Your task to perform on an android device: star an email in the gmail app Image 0: 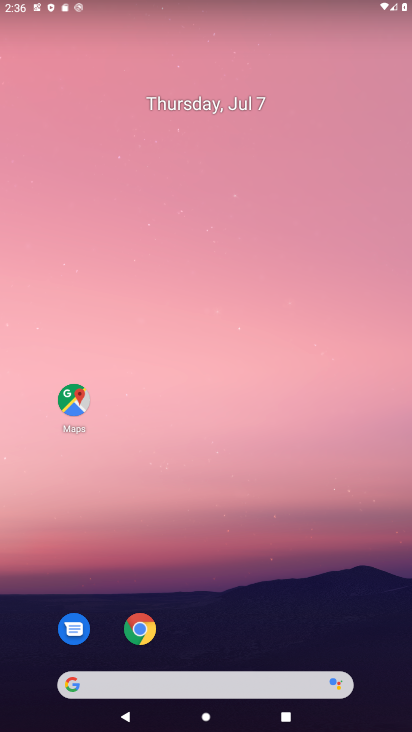
Step 0: drag from (189, 651) to (222, 103)
Your task to perform on an android device: star an email in the gmail app Image 1: 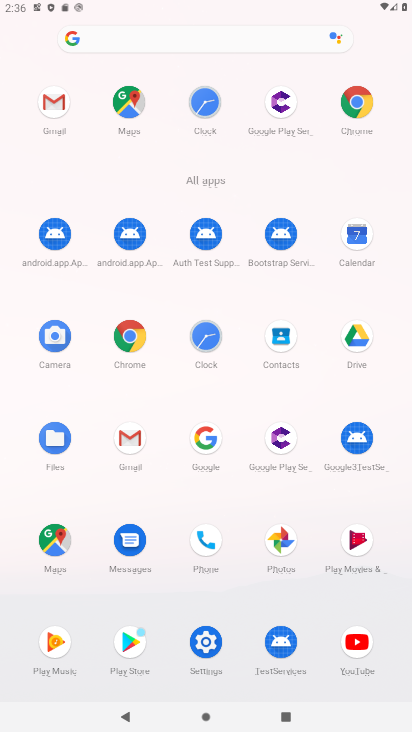
Step 1: click (50, 105)
Your task to perform on an android device: star an email in the gmail app Image 2: 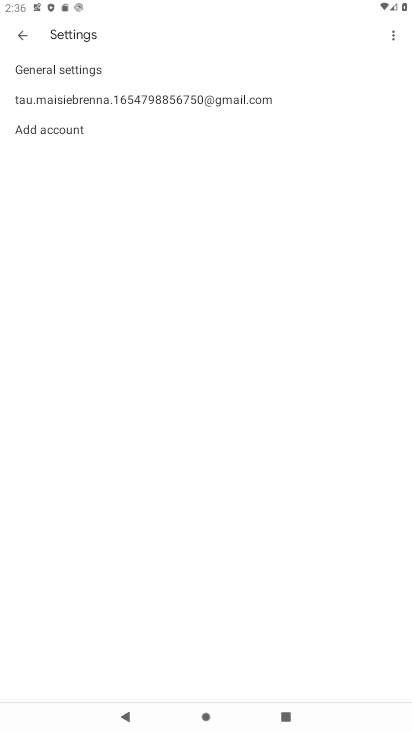
Step 2: click (50, 105)
Your task to perform on an android device: star an email in the gmail app Image 3: 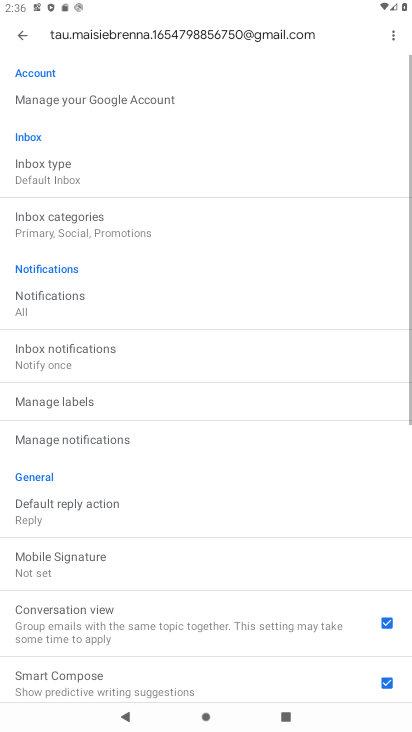
Step 3: click (29, 38)
Your task to perform on an android device: star an email in the gmail app Image 4: 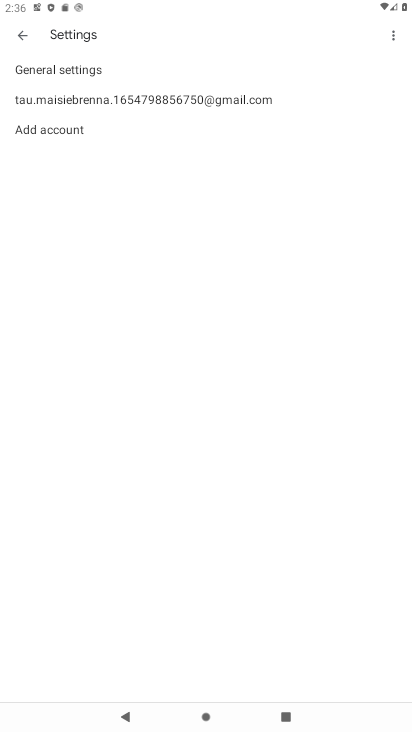
Step 4: click (29, 38)
Your task to perform on an android device: star an email in the gmail app Image 5: 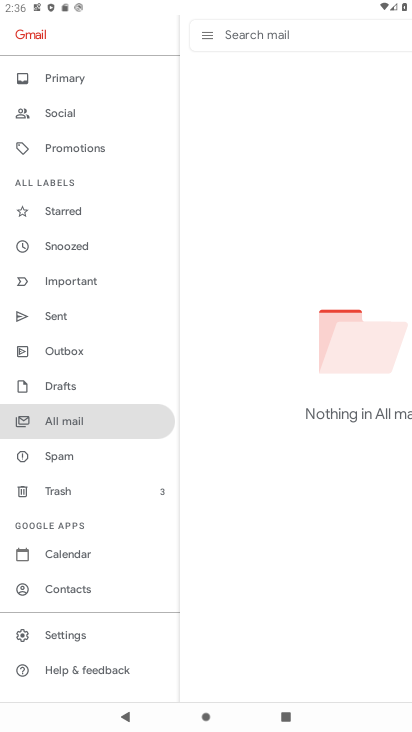
Step 5: task complete